Your task to perform on an android device: Open Google Chrome Image 0: 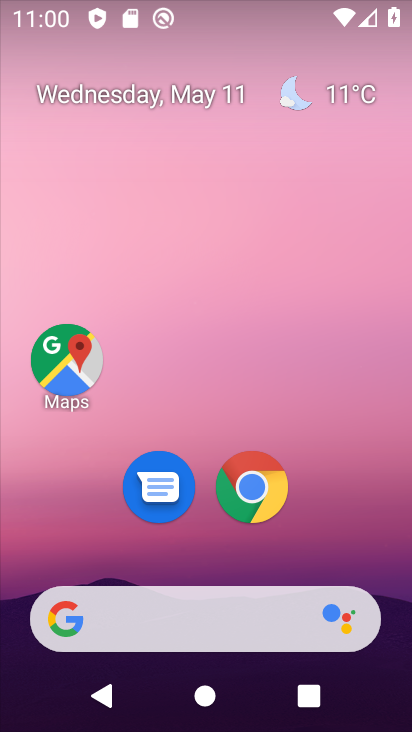
Step 0: click (265, 500)
Your task to perform on an android device: Open Google Chrome Image 1: 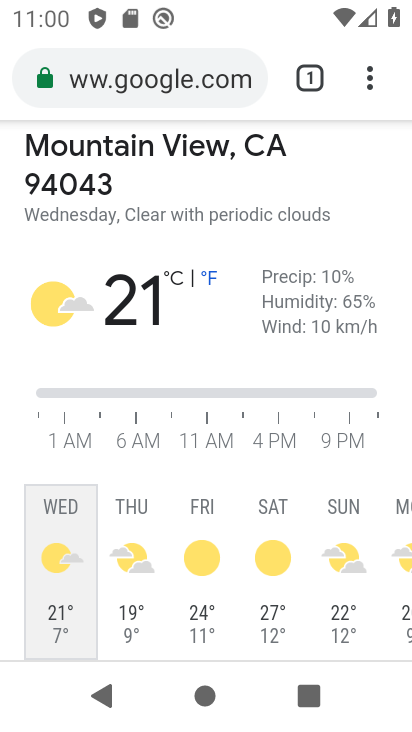
Step 1: task complete